Your task to perform on an android device: Open Reddit.com Image 0: 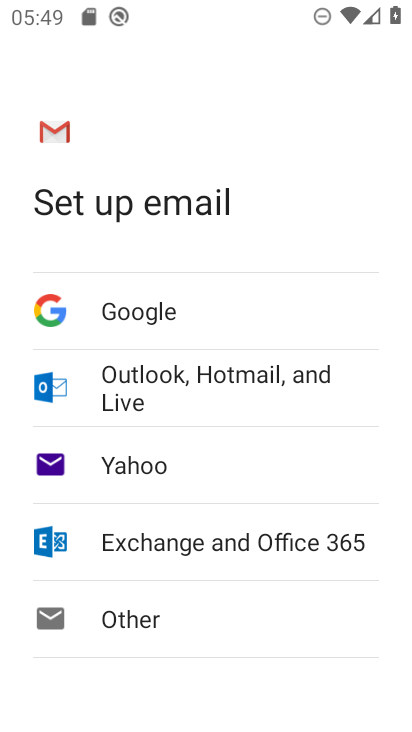
Step 0: press home button
Your task to perform on an android device: Open Reddit.com Image 1: 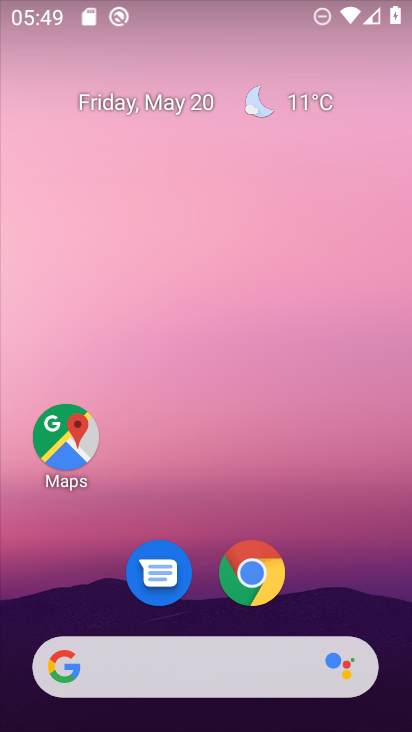
Step 1: drag from (336, 569) to (178, 59)
Your task to perform on an android device: Open Reddit.com Image 2: 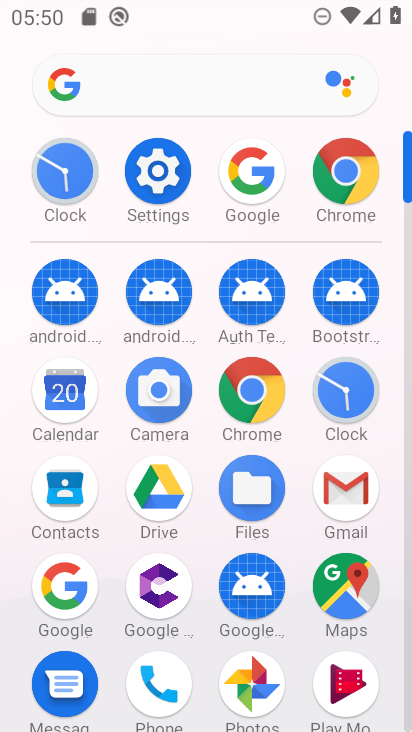
Step 2: click (328, 177)
Your task to perform on an android device: Open Reddit.com Image 3: 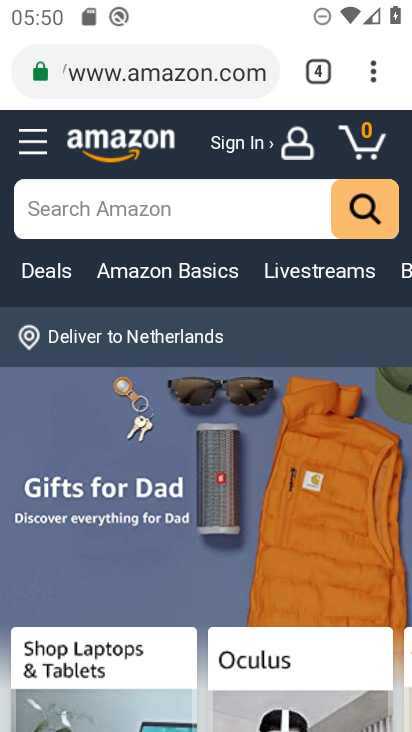
Step 3: click (201, 72)
Your task to perform on an android device: Open Reddit.com Image 4: 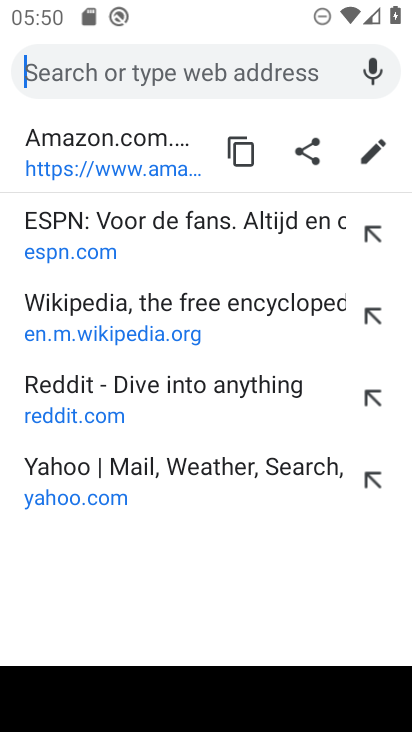
Step 4: click (89, 392)
Your task to perform on an android device: Open Reddit.com Image 5: 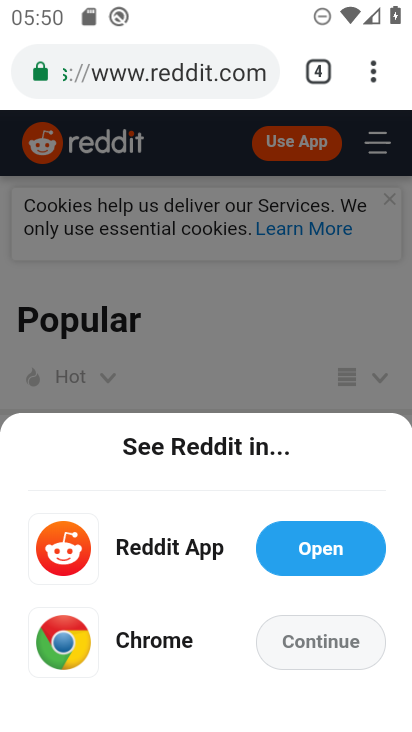
Step 5: task complete